Your task to perform on an android device: make emails show in primary in the gmail app Image 0: 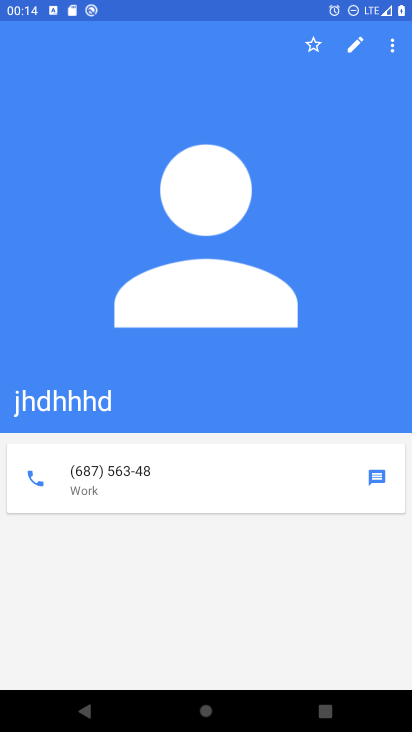
Step 0: press home button
Your task to perform on an android device: make emails show in primary in the gmail app Image 1: 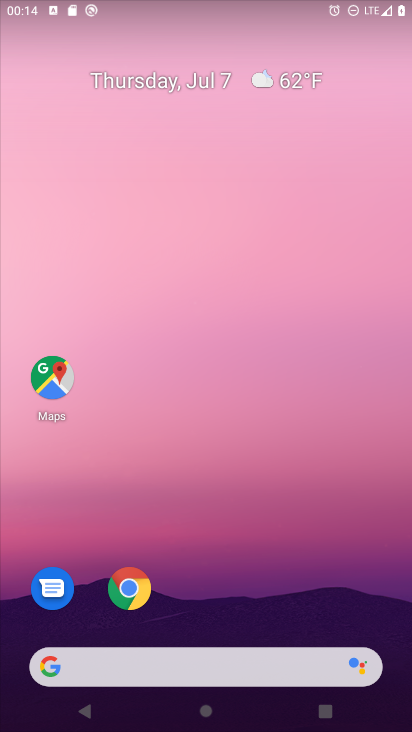
Step 1: drag from (386, 609) to (331, 29)
Your task to perform on an android device: make emails show in primary in the gmail app Image 2: 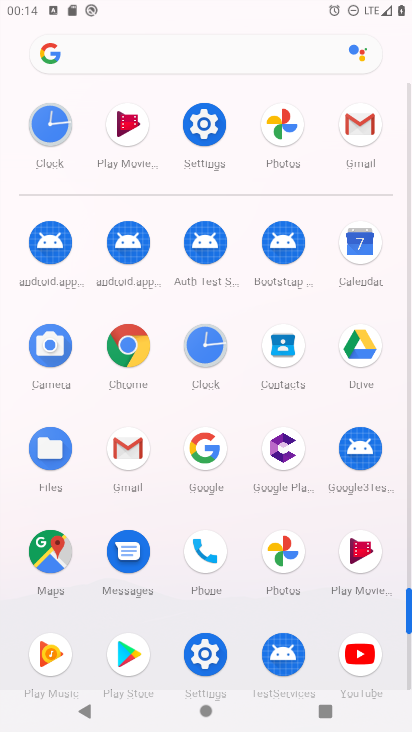
Step 2: click (129, 447)
Your task to perform on an android device: make emails show in primary in the gmail app Image 3: 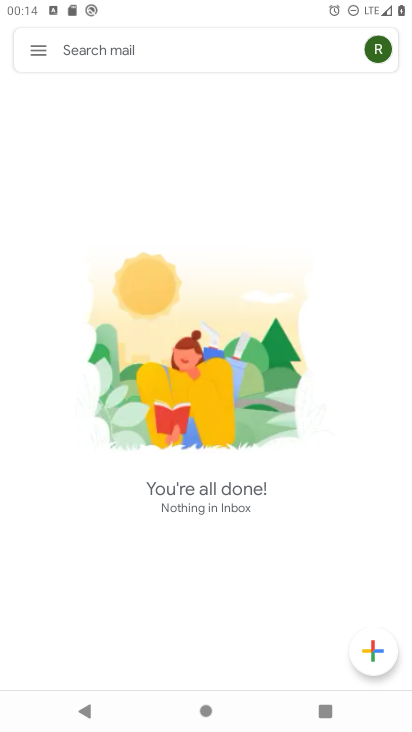
Step 3: click (35, 53)
Your task to perform on an android device: make emails show in primary in the gmail app Image 4: 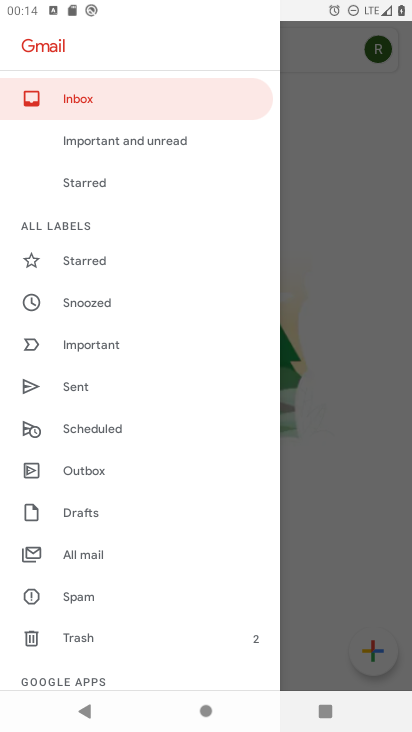
Step 4: drag from (170, 520) to (170, 200)
Your task to perform on an android device: make emails show in primary in the gmail app Image 5: 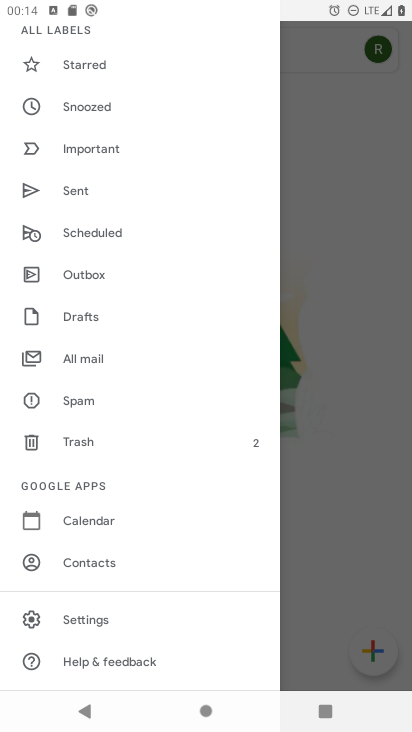
Step 5: click (91, 619)
Your task to perform on an android device: make emails show in primary in the gmail app Image 6: 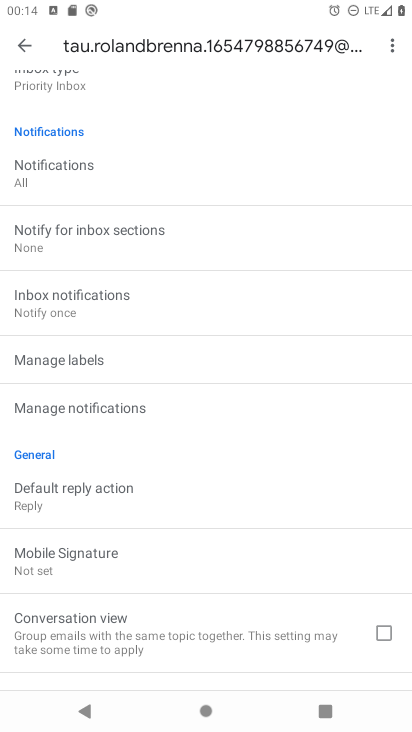
Step 6: drag from (217, 202) to (197, 484)
Your task to perform on an android device: make emails show in primary in the gmail app Image 7: 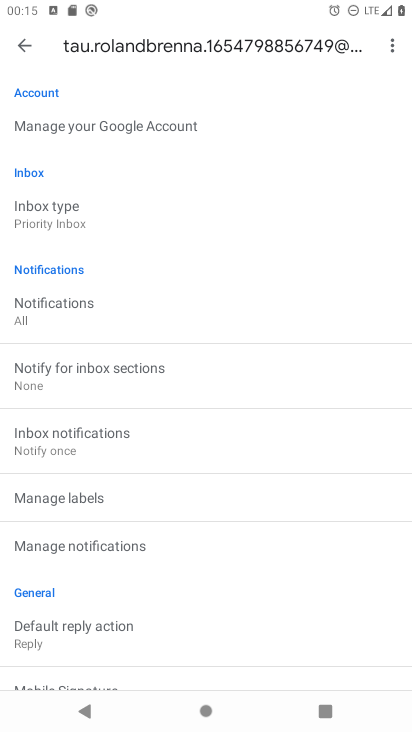
Step 7: click (51, 211)
Your task to perform on an android device: make emails show in primary in the gmail app Image 8: 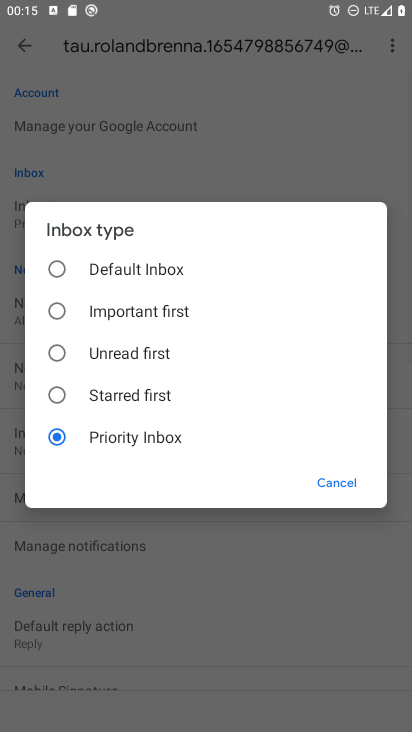
Step 8: click (53, 266)
Your task to perform on an android device: make emails show in primary in the gmail app Image 9: 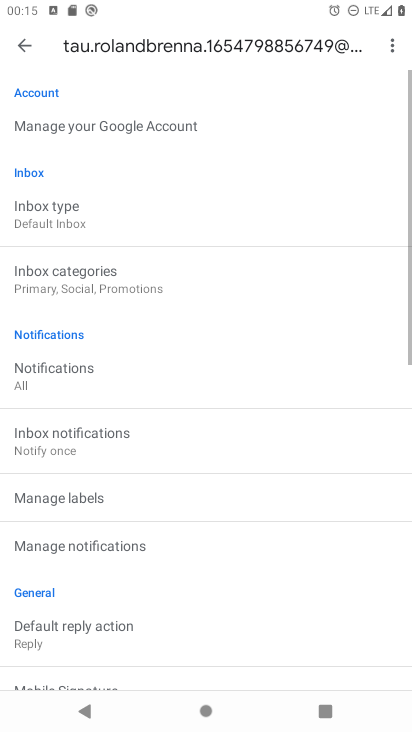
Step 9: click (60, 279)
Your task to perform on an android device: make emails show in primary in the gmail app Image 10: 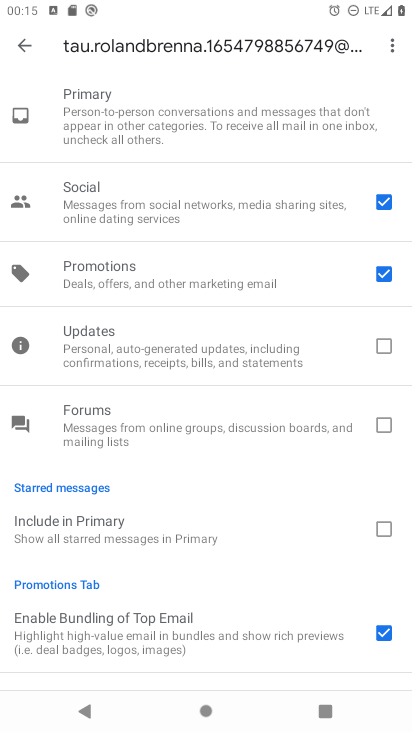
Step 10: click (381, 204)
Your task to perform on an android device: make emails show in primary in the gmail app Image 11: 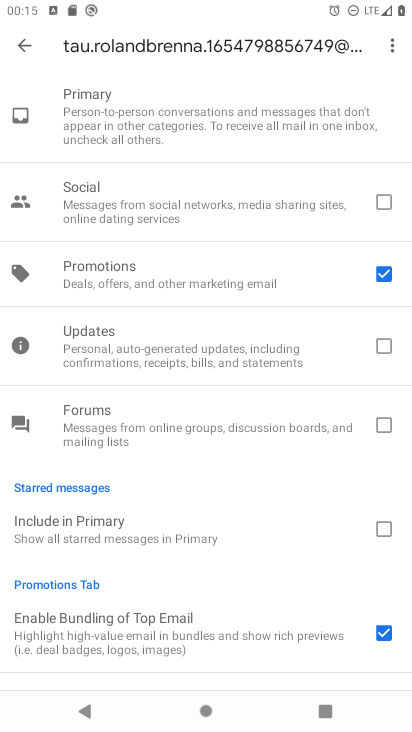
Step 11: click (382, 276)
Your task to perform on an android device: make emails show in primary in the gmail app Image 12: 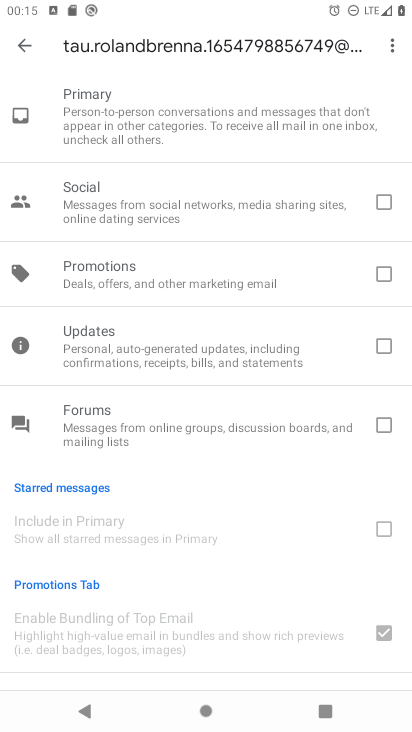
Step 12: task complete